Your task to perform on an android device: Open notification settings Image 0: 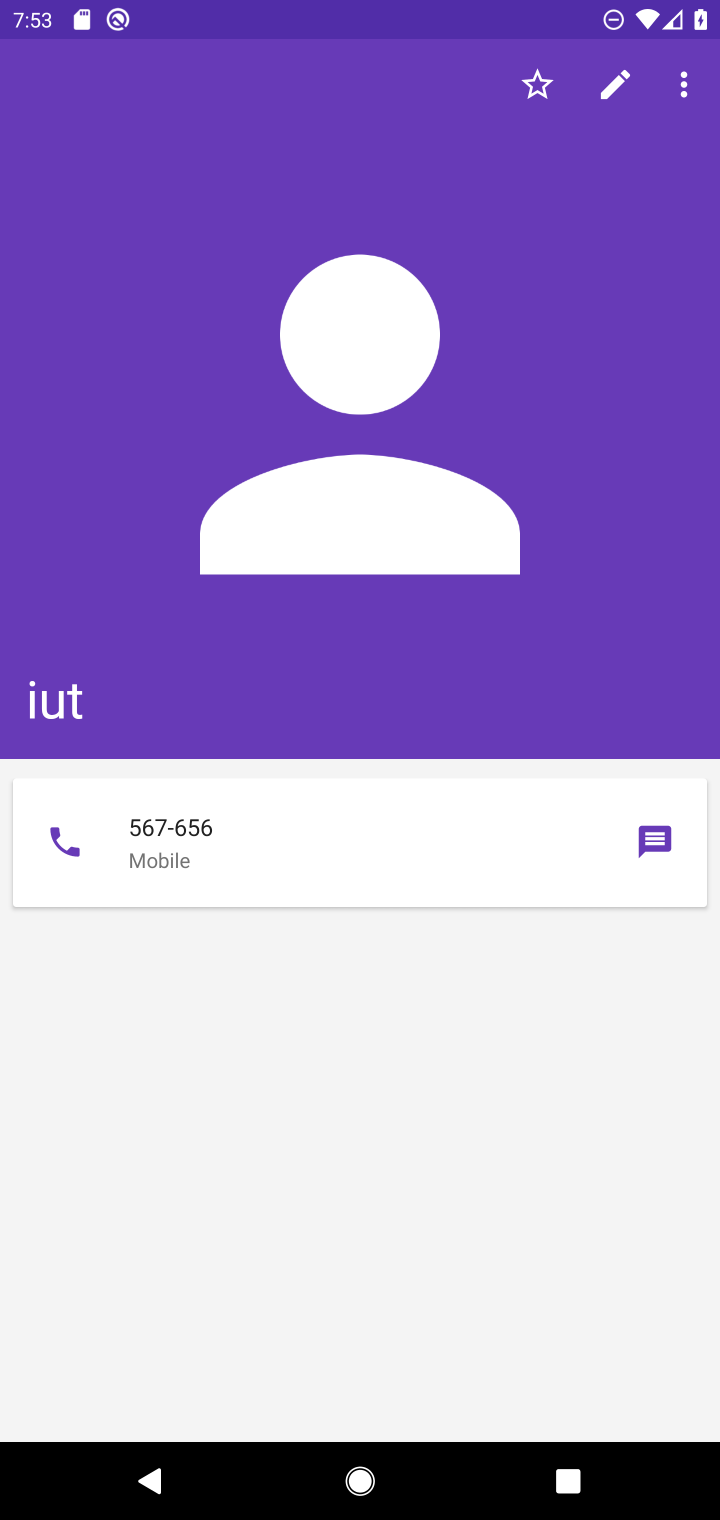
Step 0: press home button
Your task to perform on an android device: Open notification settings Image 1: 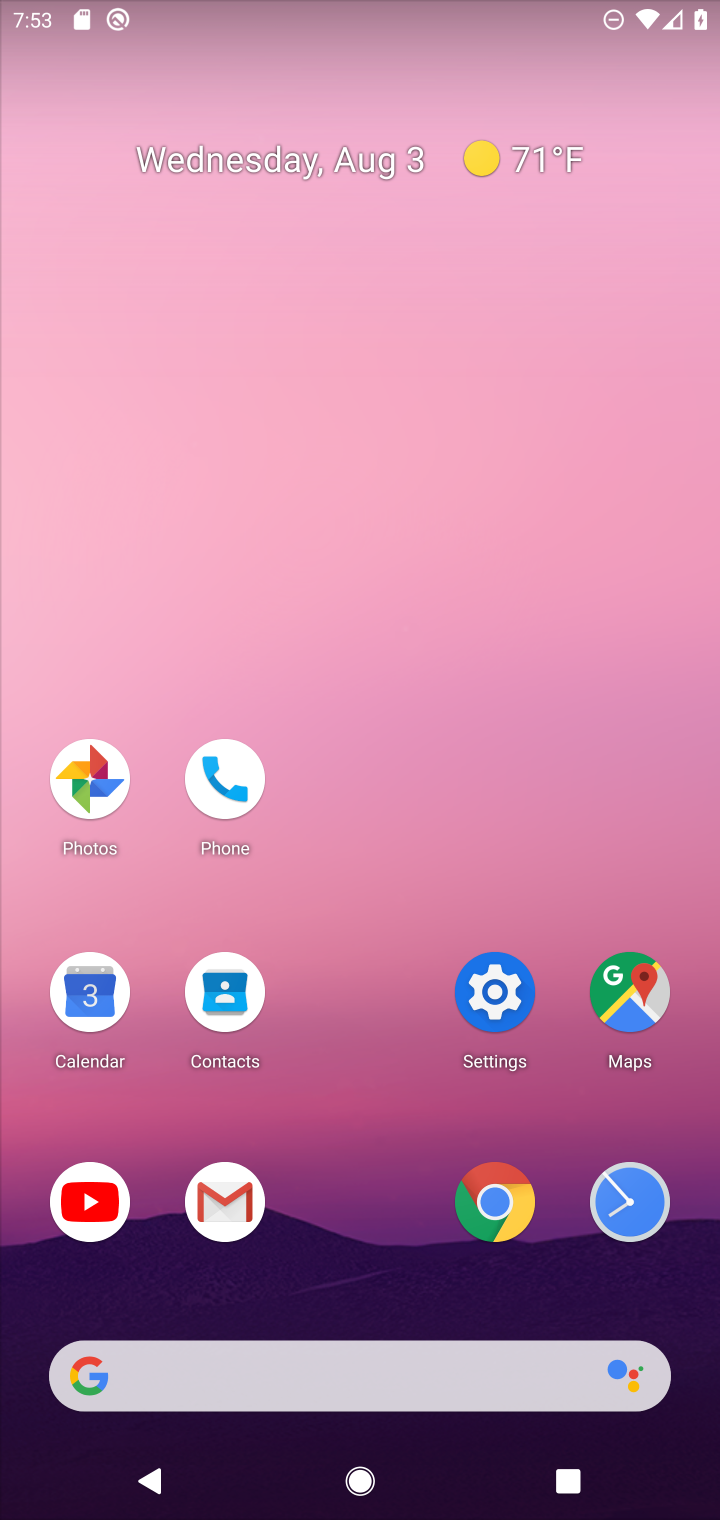
Step 1: click (491, 999)
Your task to perform on an android device: Open notification settings Image 2: 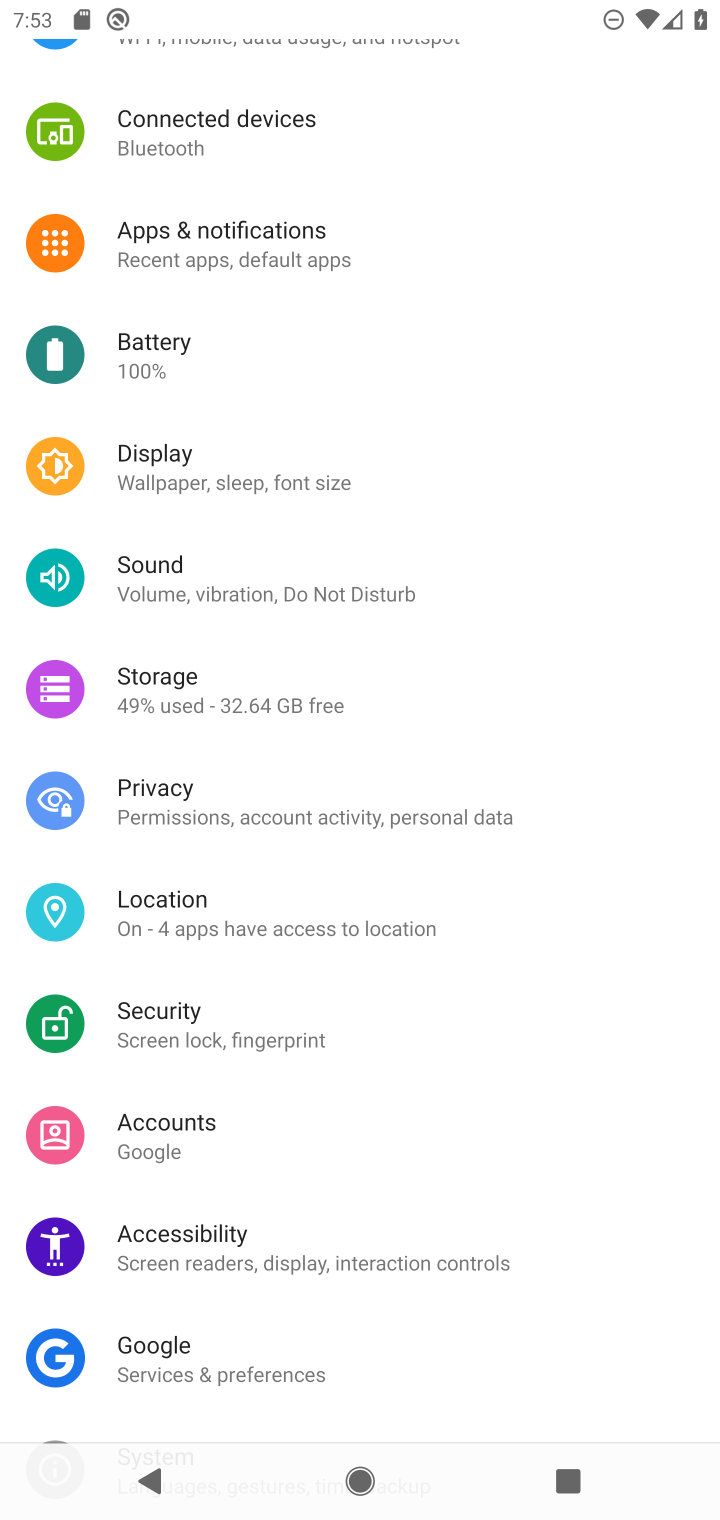
Step 2: click (194, 233)
Your task to perform on an android device: Open notification settings Image 3: 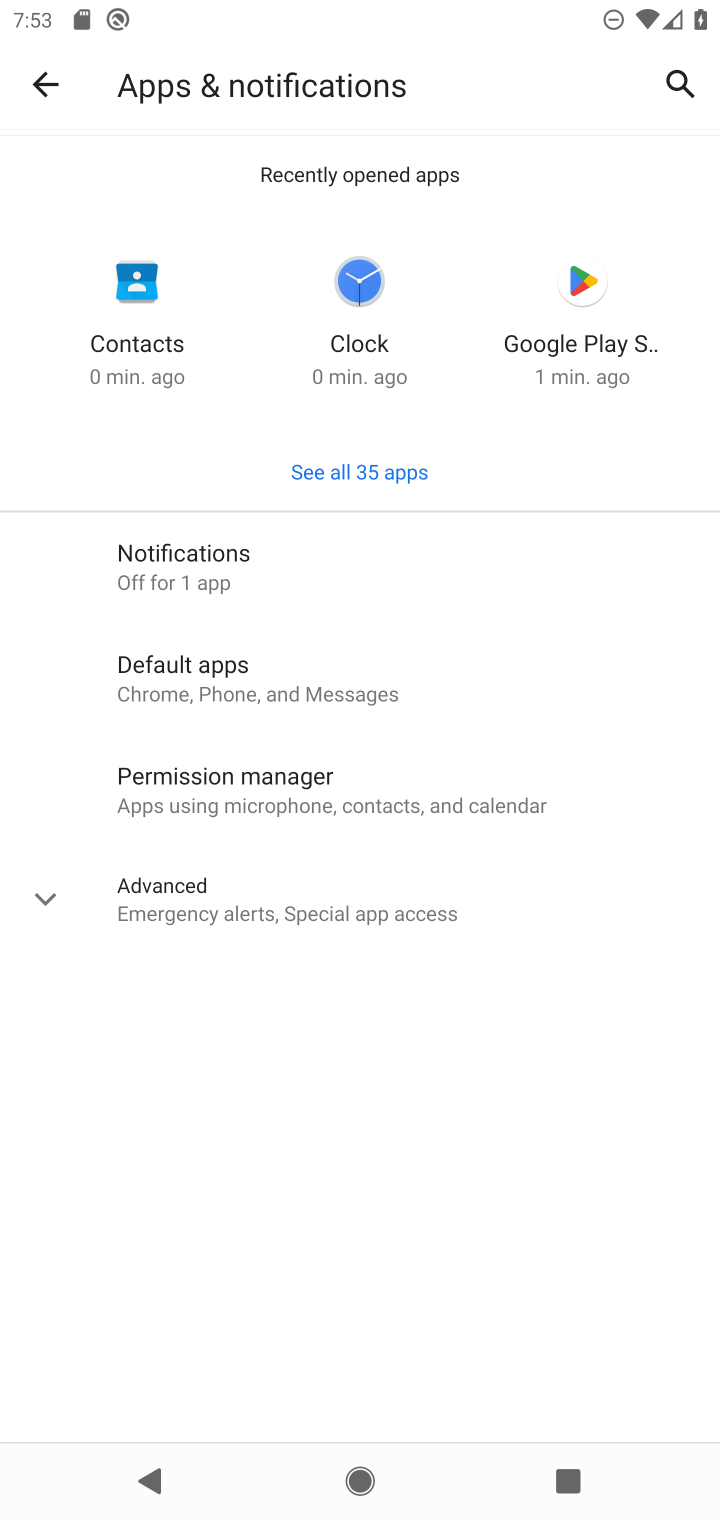
Step 3: click (204, 553)
Your task to perform on an android device: Open notification settings Image 4: 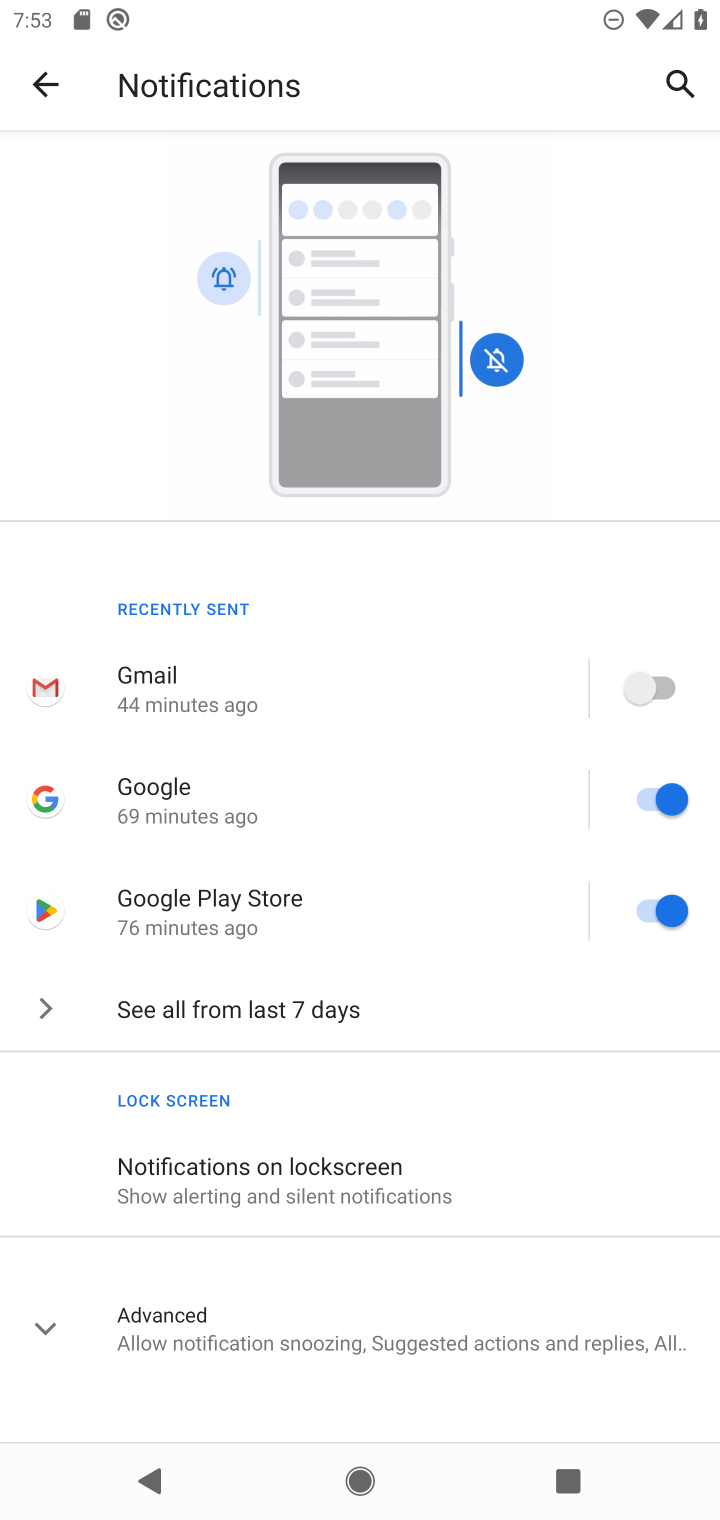
Step 4: task complete